Your task to perform on an android device: turn off smart reply in the gmail app Image 0: 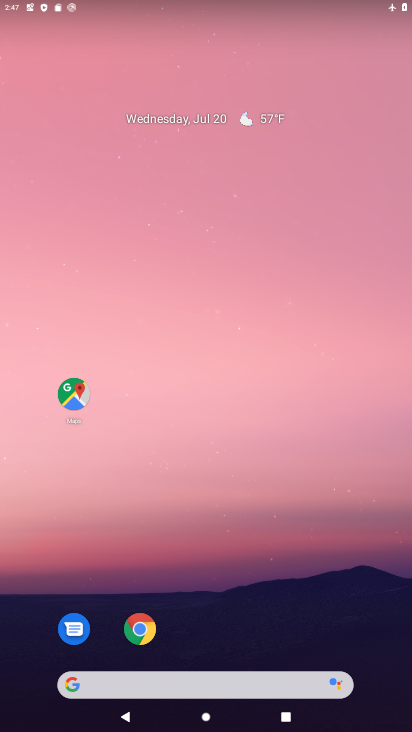
Step 0: drag from (208, 627) to (215, 233)
Your task to perform on an android device: turn off smart reply in the gmail app Image 1: 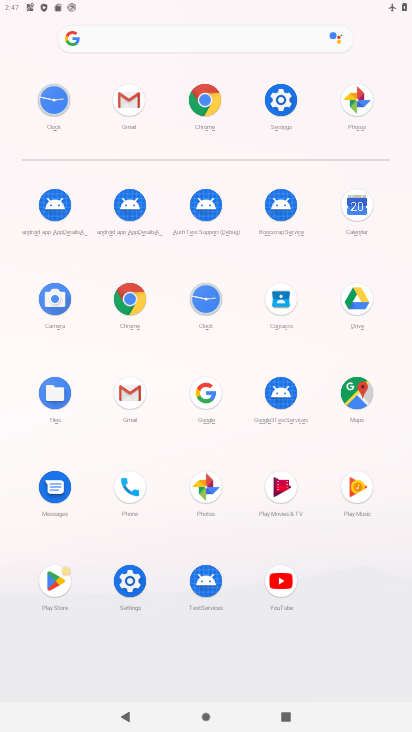
Step 1: click (151, 98)
Your task to perform on an android device: turn off smart reply in the gmail app Image 2: 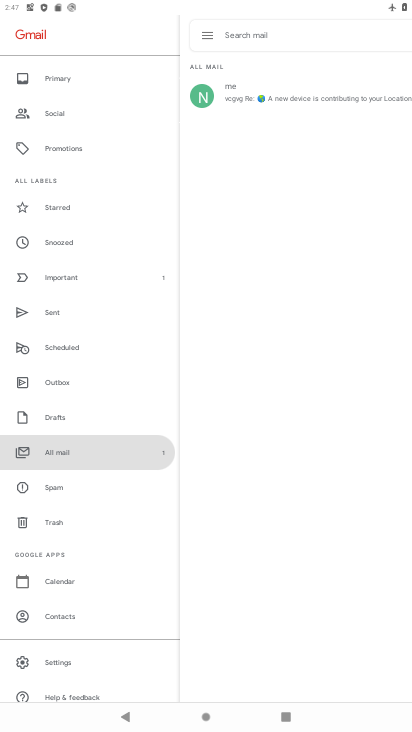
Step 2: click (63, 664)
Your task to perform on an android device: turn off smart reply in the gmail app Image 3: 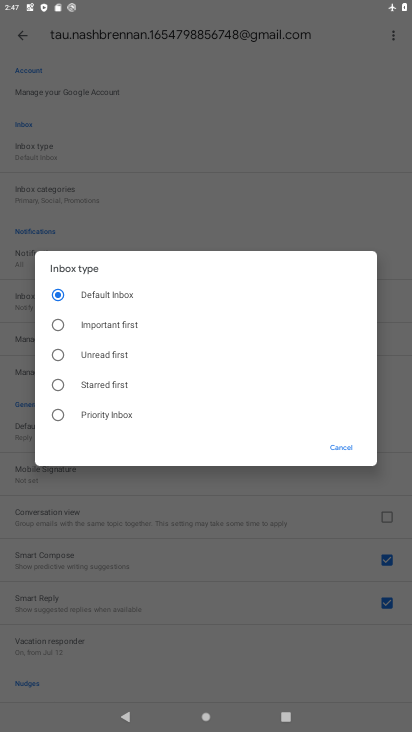
Step 3: click (71, 515)
Your task to perform on an android device: turn off smart reply in the gmail app Image 4: 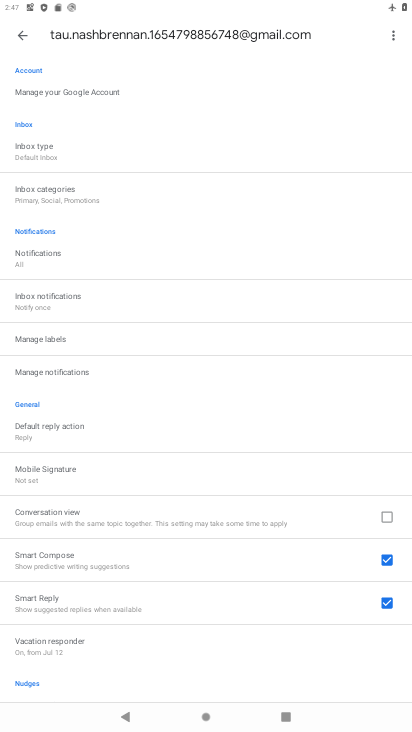
Step 4: click (385, 602)
Your task to perform on an android device: turn off smart reply in the gmail app Image 5: 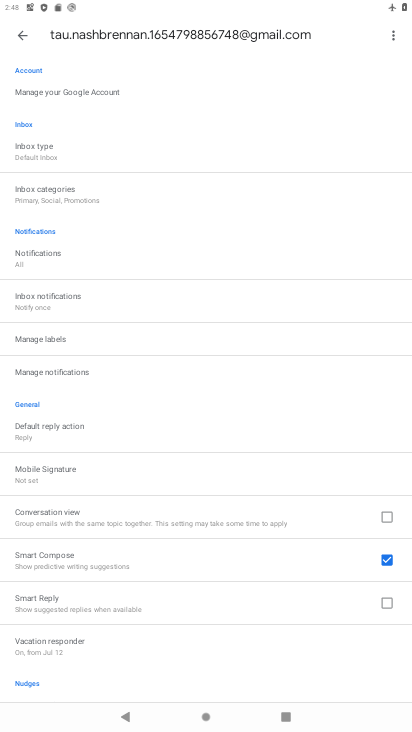
Step 5: task complete